Your task to perform on an android device: turn on improve location accuracy Image 0: 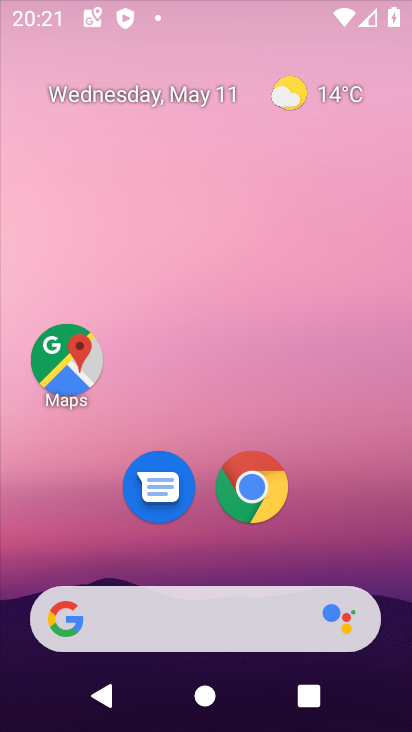
Step 0: press home button
Your task to perform on an android device: turn on improve location accuracy Image 1: 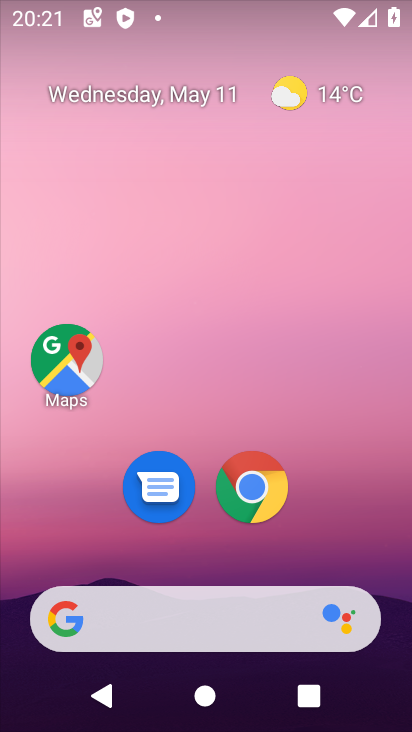
Step 1: drag from (205, 591) to (225, 198)
Your task to perform on an android device: turn on improve location accuracy Image 2: 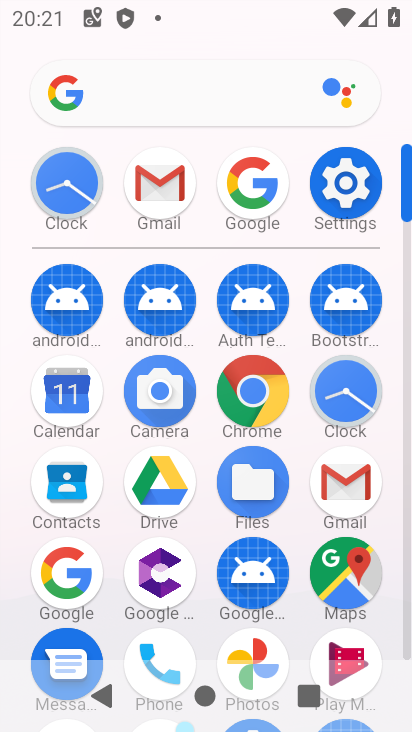
Step 2: click (330, 186)
Your task to perform on an android device: turn on improve location accuracy Image 3: 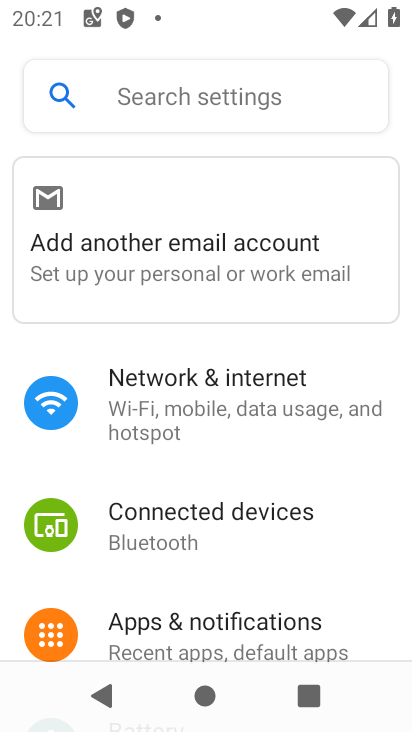
Step 3: drag from (197, 647) to (198, 286)
Your task to perform on an android device: turn on improve location accuracy Image 4: 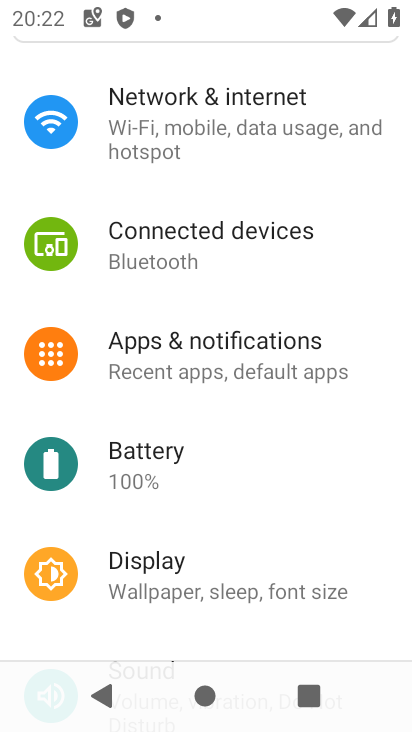
Step 4: drag from (194, 617) to (194, 354)
Your task to perform on an android device: turn on improve location accuracy Image 5: 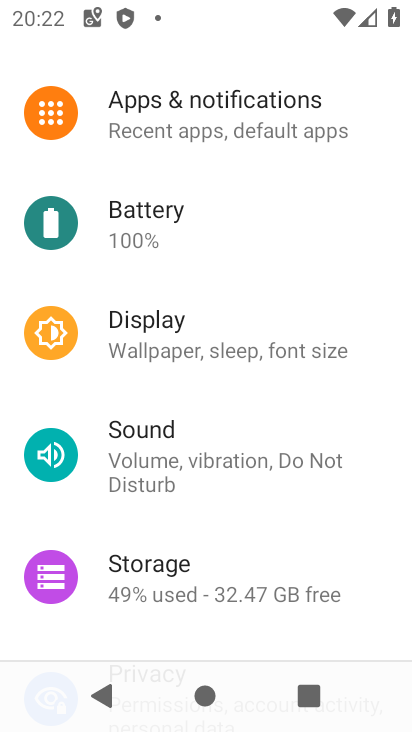
Step 5: drag from (165, 604) to (173, 252)
Your task to perform on an android device: turn on improve location accuracy Image 6: 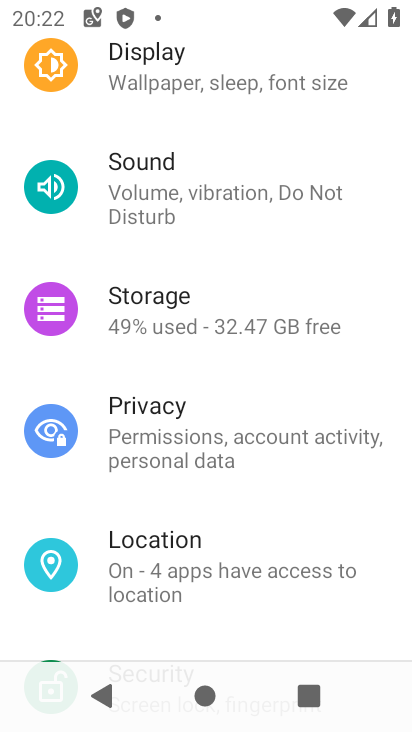
Step 6: click (172, 572)
Your task to perform on an android device: turn on improve location accuracy Image 7: 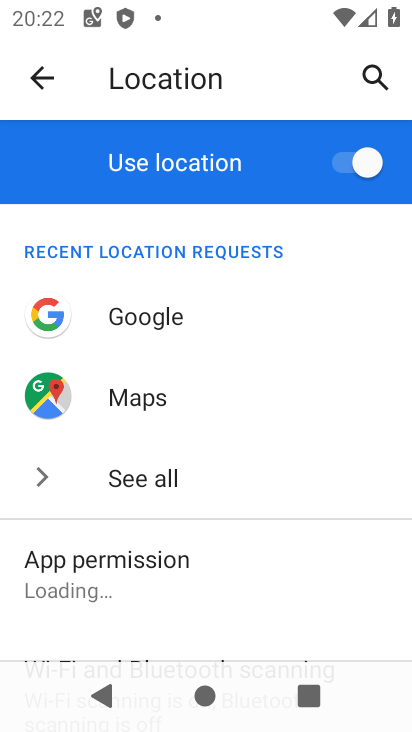
Step 7: drag from (155, 626) to (167, 273)
Your task to perform on an android device: turn on improve location accuracy Image 8: 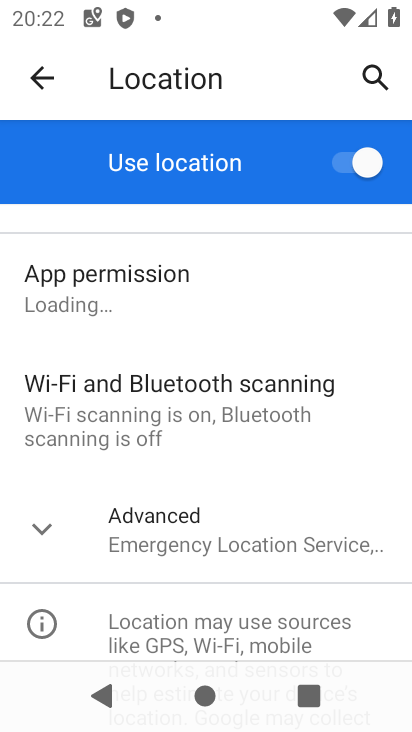
Step 8: click (145, 528)
Your task to perform on an android device: turn on improve location accuracy Image 9: 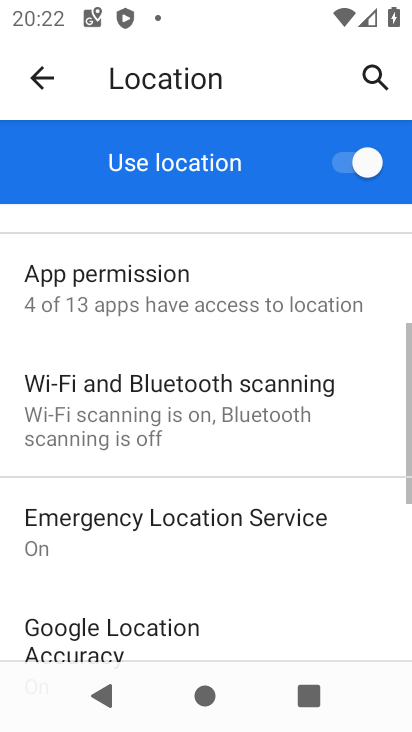
Step 9: drag from (219, 622) to (251, 283)
Your task to perform on an android device: turn on improve location accuracy Image 10: 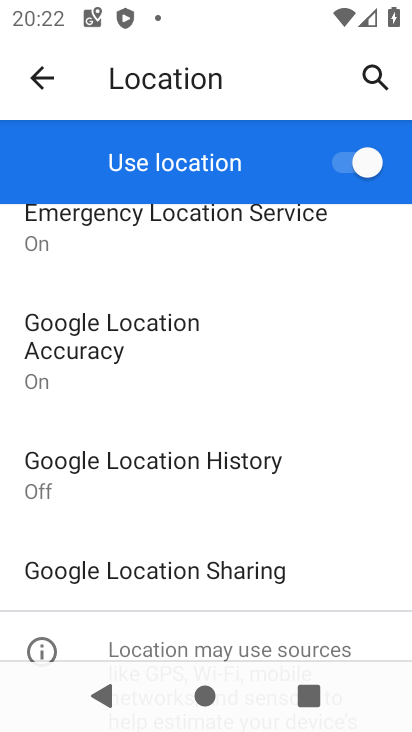
Step 10: click (93, 351)
Your task to perform on an android device: turn on improve location accuracy Image 11: 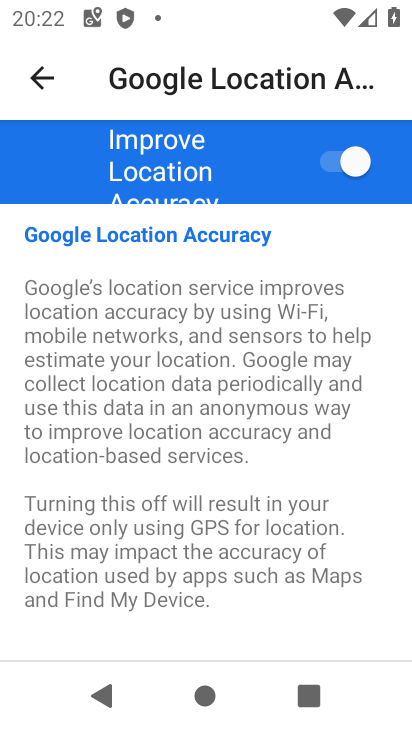
Step 11: task complete